Your task to perform on an android device: Go to ESPN.com Image 0: 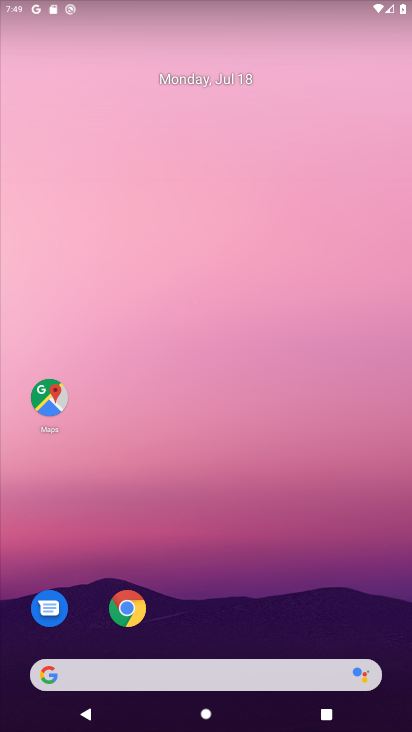
Step 0: click (137, 615)
Your task to perform on an android device: Go to ESPN.com Image 1: 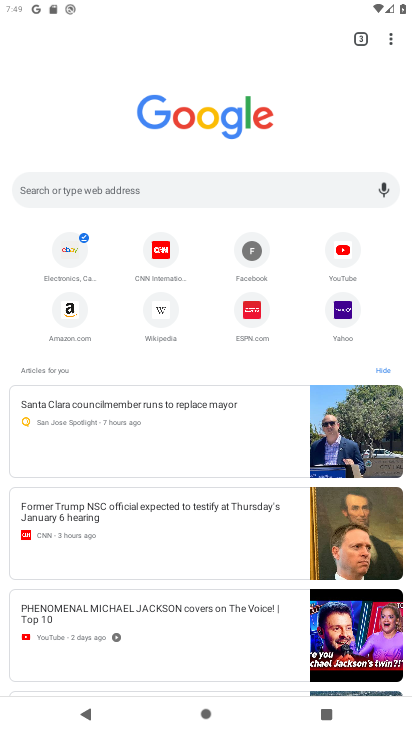
Step 1: click (249, 309)
Your task to perform on an android device: Go to ESPN.com Image 2: 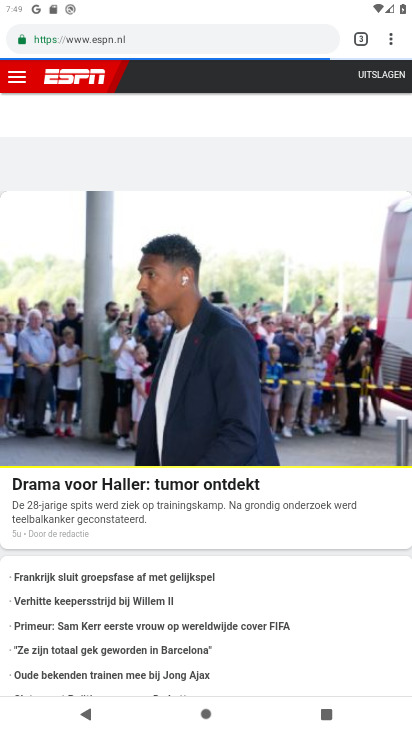
Step 2: task complete